Your task to perform on an android device: Play the last video I watched on Youtube Image 0: 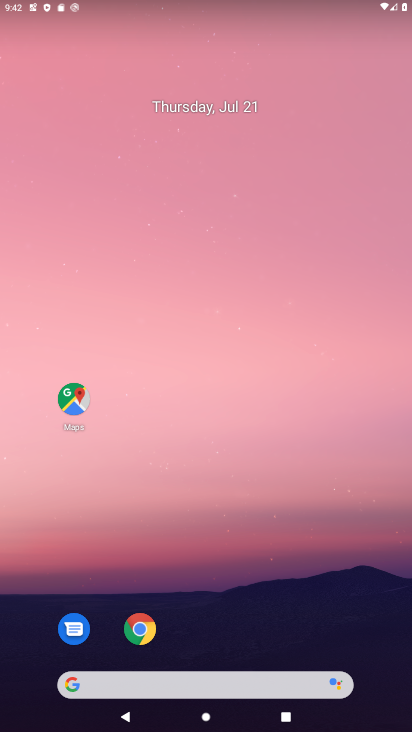
Step 0: drag from (211, 664) to (210, 78)
Your task to perform on an android device: Play the last video I watched on Youtube Image 1: 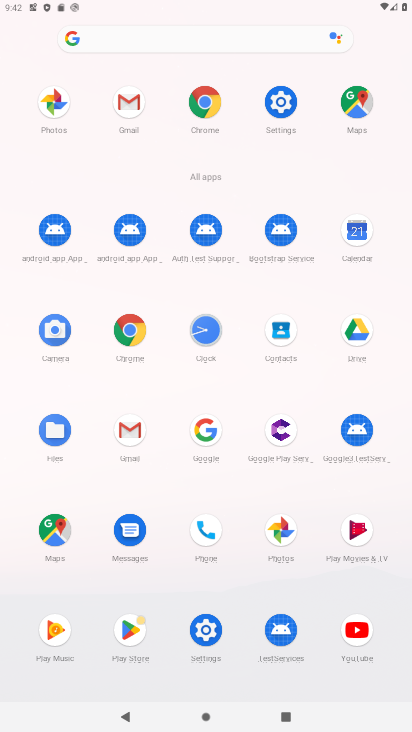
Step 1: click (368, 629)
Your task to perform on an android device: Play the last video I watched on Youtube Image 2: 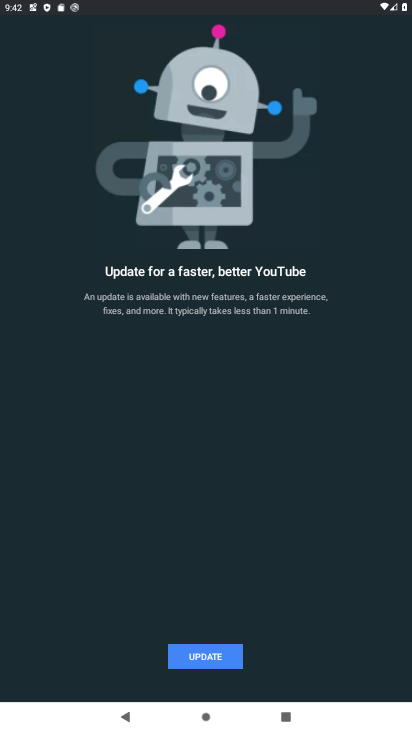
Step 2: click (186, 654)
Your task to perform on an android device: Play the last video I watched on Youtube Image 3: 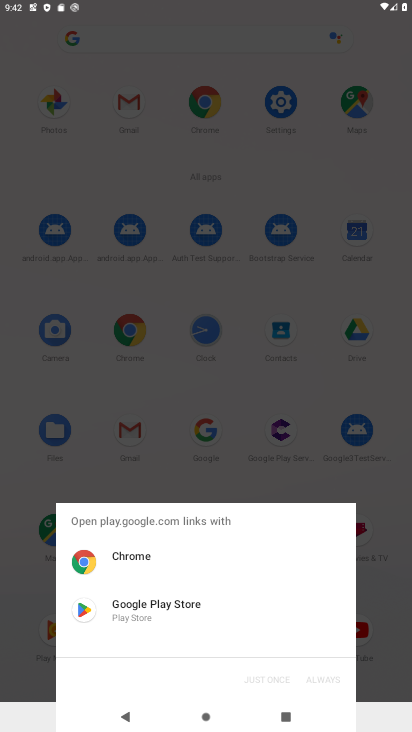
Step 3: click (166, 602)
Your task to perform on an android device: Play the last video I watched on Youtube Image 4: 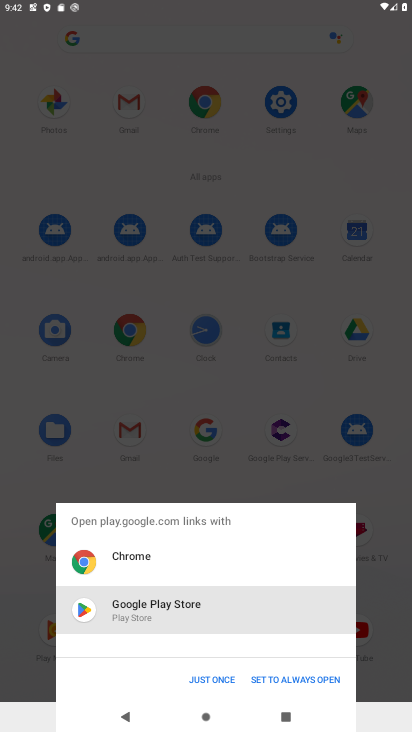
Step 4: click (226, 672)
Your task to perform on an android device: Play the last video I watched on Youtube Image 5: 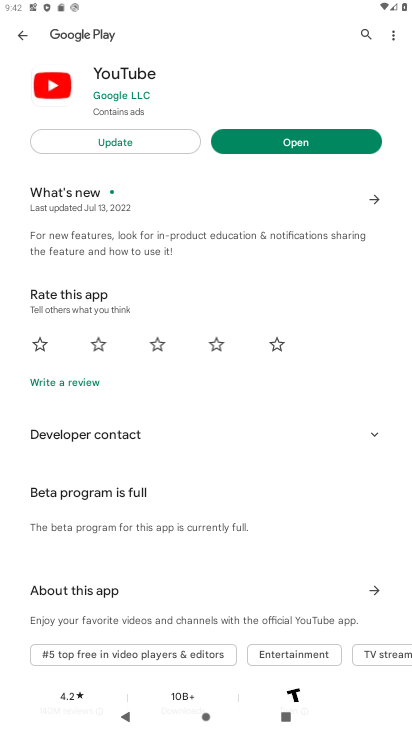
Step 5: click (167, 139)
Your task to perform on an android device: Play the last video I watched on Youtube Image 6: 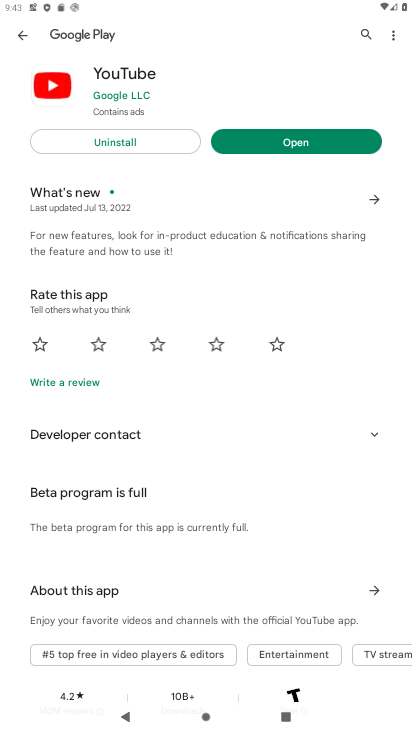
Step 6: click (275, 131)
Your task to perform on an android device: Play the last video I watched on Youtube Image 7: 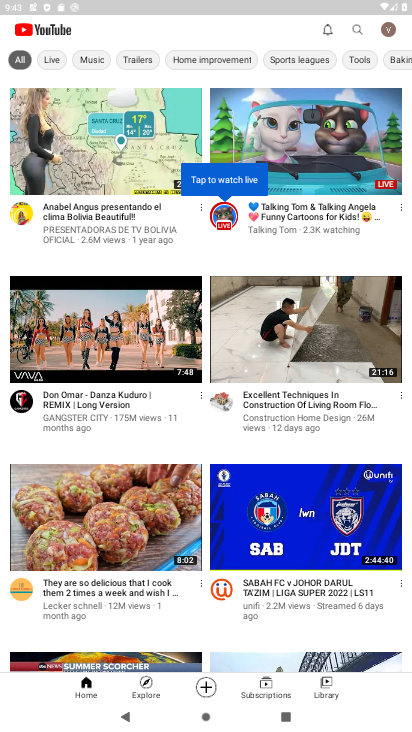
Step 7: click (334, 692)
Your task to perform on an android device: Play the last video I watched on Youtube Image 8: 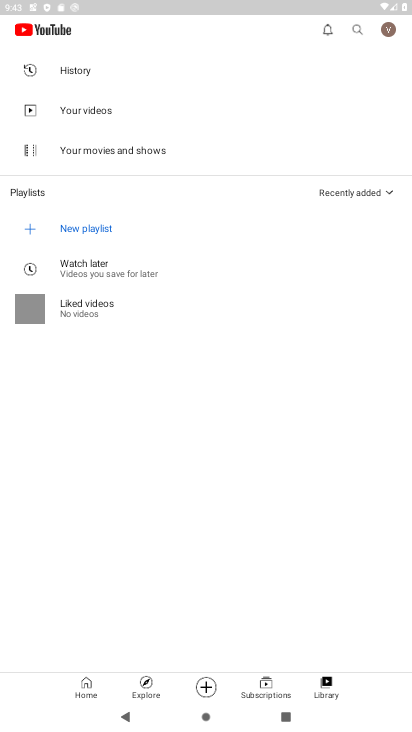
Step 8: click (133, 77)
Your task to perform on an android device: Play the last video I watched on Youtube Image 9: 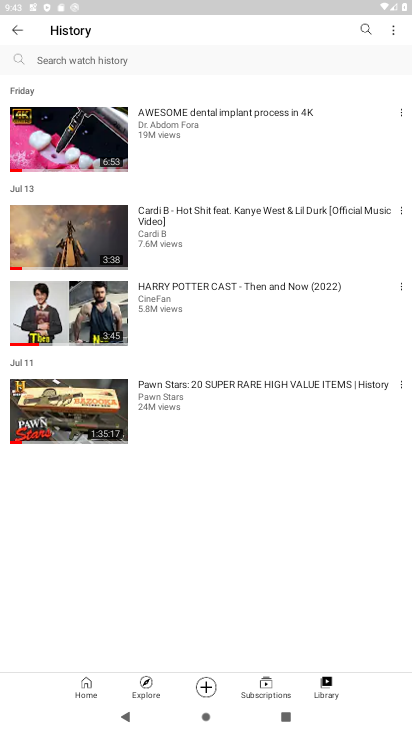
Step 9: click (64, 149)
Your task to perform on an android device: Play the last video I watched on Youtube Image 10: 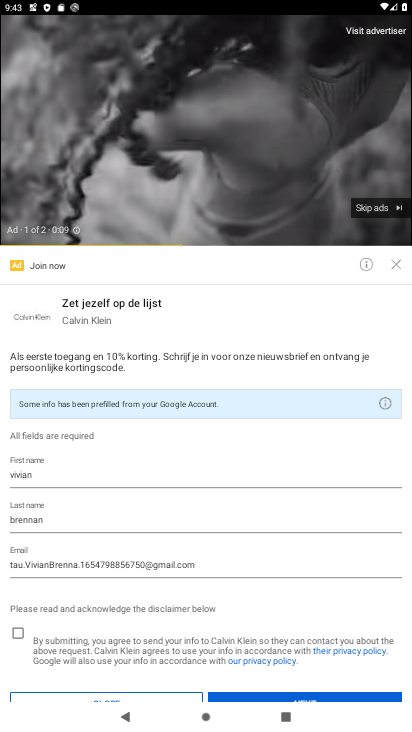
Step 10: click (383, 209)
Your task to perform on an android device: Play the last video I watched on Youtube Image 11: 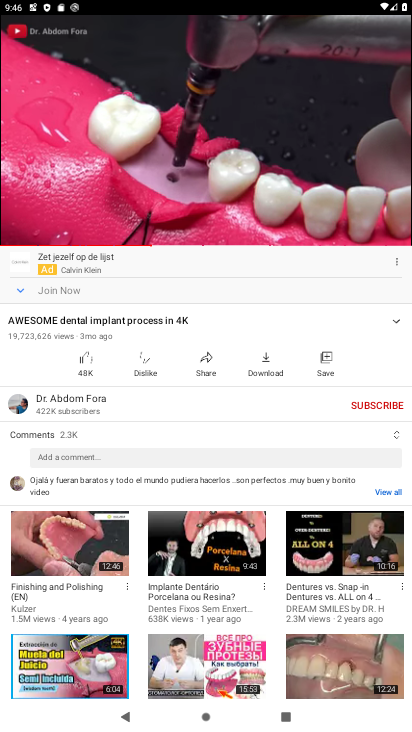
Step 11: task complete